Your task to perform on an android device: Open privacy settings Image 0: 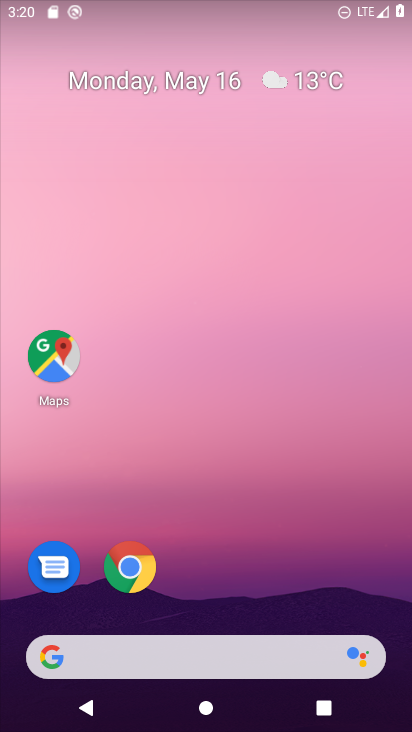
Step 0: drag from (271, 600) to (226, 59)
Your task to perform on an android device: Open privacy settings Image 1: 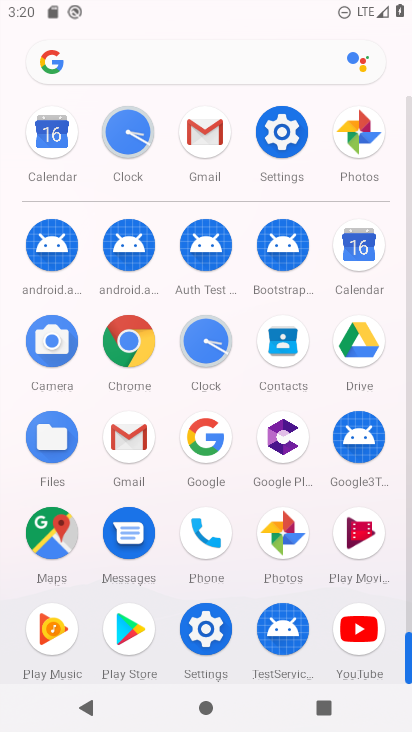
Step 1: click (290, 165)
Your task to perform on an android device: Open privacy settings Image 2: 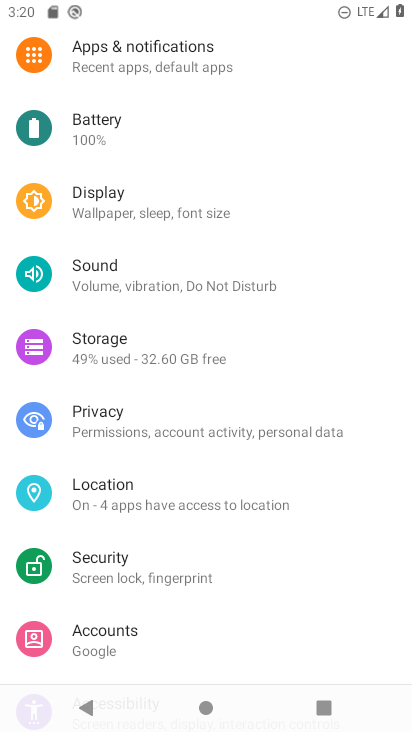
Step 2: click (117, 426)
Your task to perform on an android device: Open privacy settings Image 3: 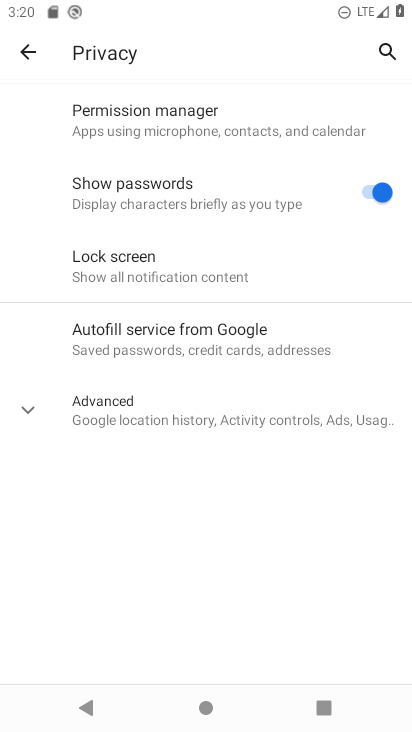
Step 3: task complete